Your task to perform on an android device: turn off airplane mode Image 0: 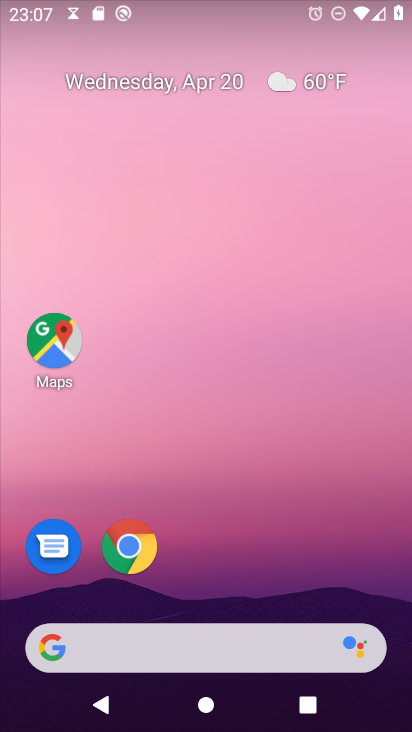
Step 0: drag from (236, 400) to (231, 62)
Your task to perform on an android device: turn off airplane mode Image 1: 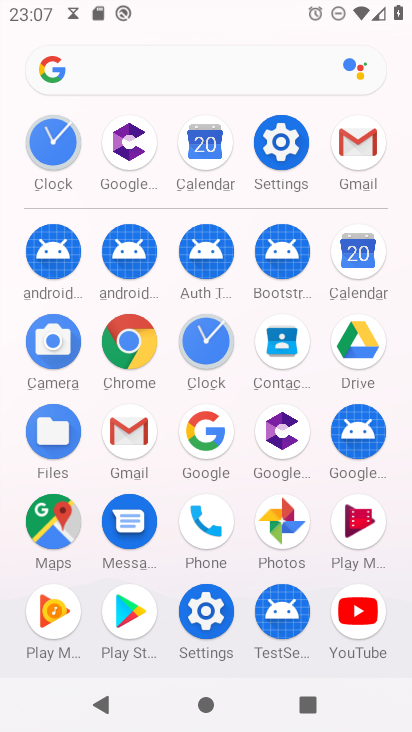
Step 1: click (280, 136)
Your task to perform on an android device: turn off airplane mode Image 2: 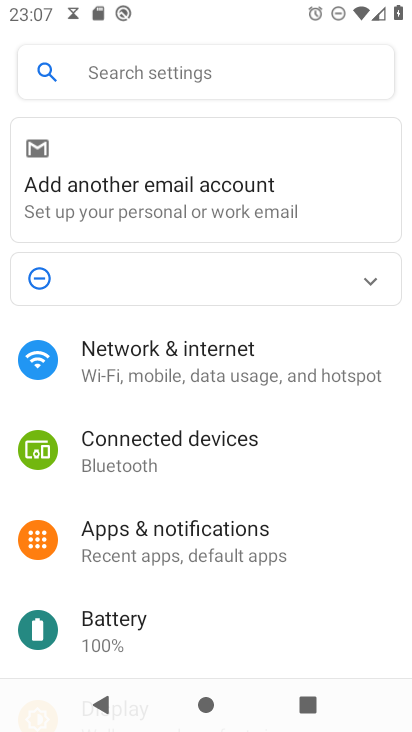
Step 2: click (220, 346)
Your task to perform on an android device: turn off airplane mode Image 3: 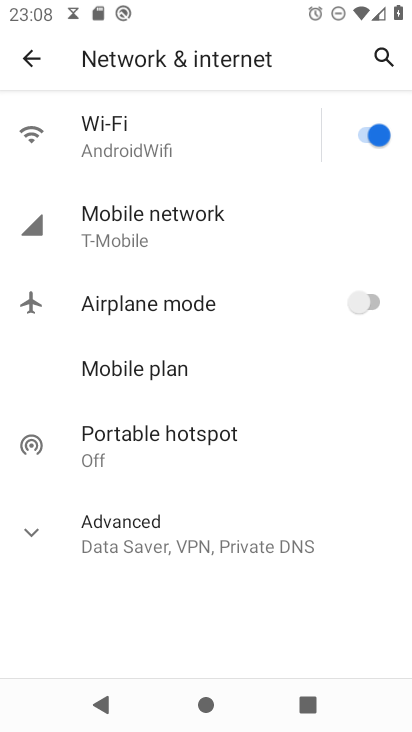
Step 3: task complete